Your task to perform on an android device: Do I have any events this weekend? Image 0: 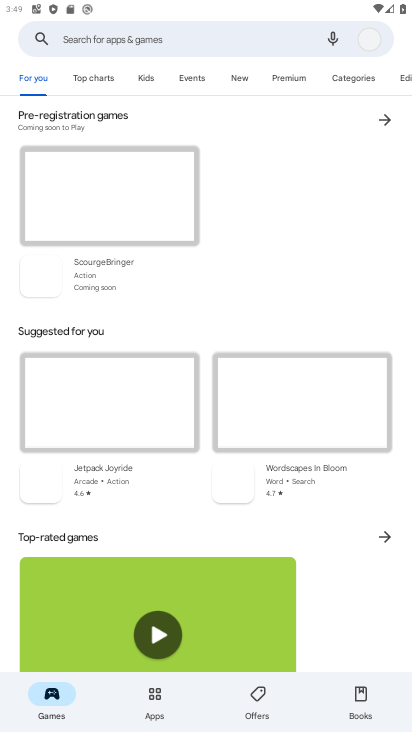
Step 0: press home button
Your task to perform on an android device: Do I have any events this weekend? Image 1: 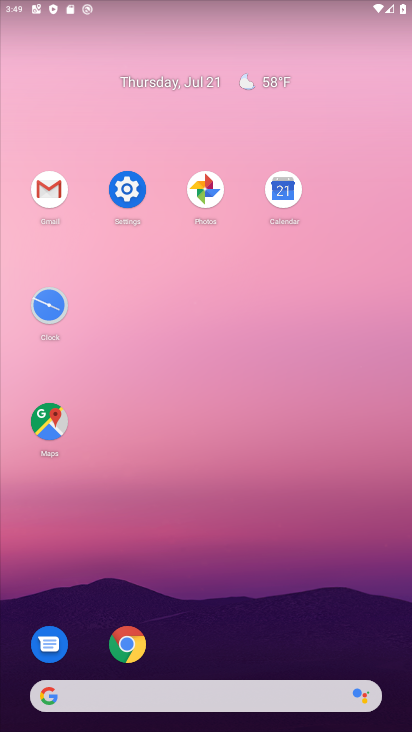
Step 1: click (283, 197)
Your task to perform on an android device: Do I have any events this weekend? Image 2: 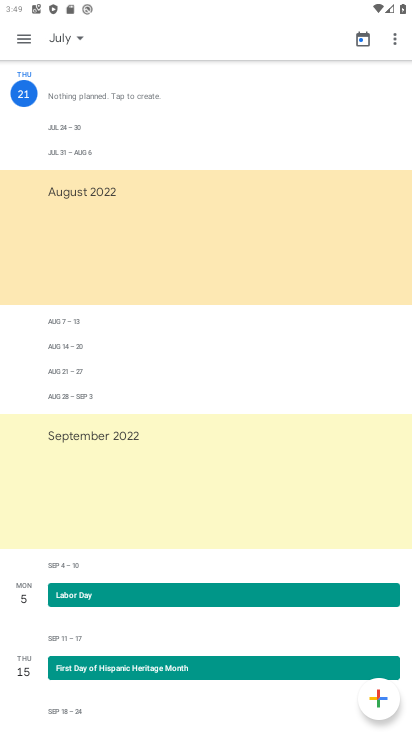
Step 2: click (29, 42)
Your task to perform on an android device: Do I have any events this weekend? Image 3: 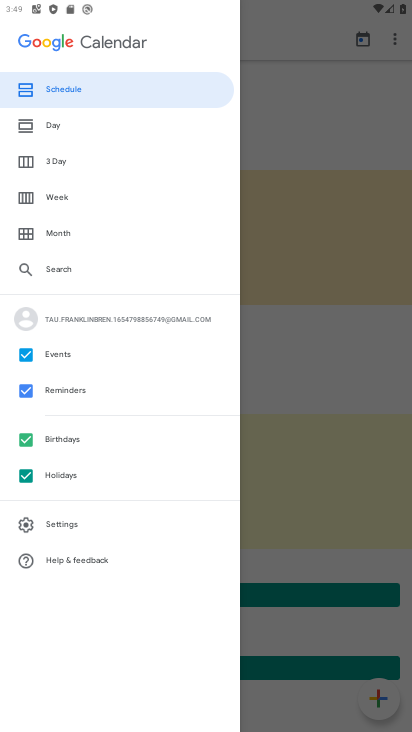
Step 3: click (77, 200)
Your task to perform on an android device: Do I have any events this weekend? Image 4: 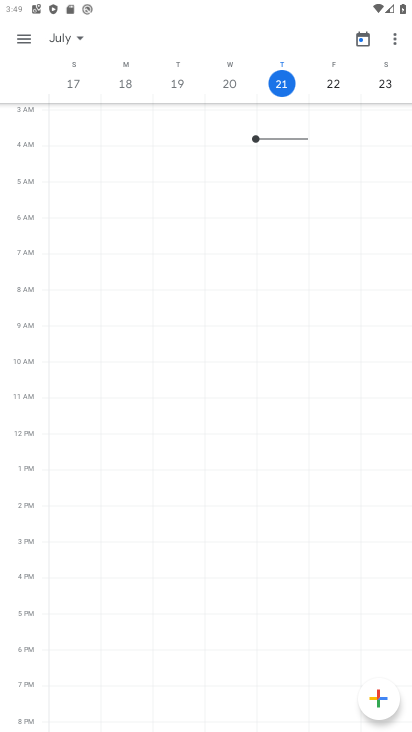
Step 4: task complete